Your task to perform on an android device: Search for sushi restaurants on Maps Image 0: 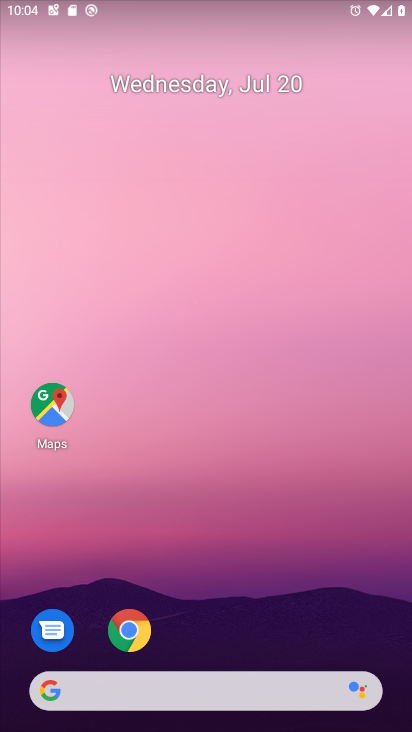
Step 0: click (47, 399)
Your task to perform on an android device: Search for sushi restaurants on Maps Image 1: 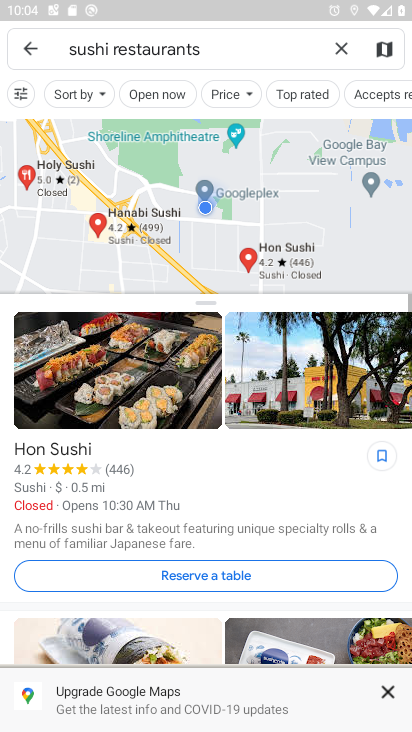
Step 1: task complete